Your task to perform on an android device: Toggle the flashlight Image 0: 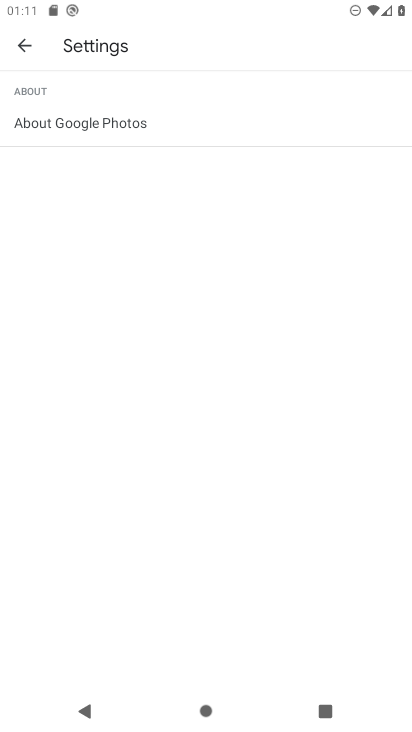
Step 0: press home button
Your task to perform on an android device: Toggle the flashlight Image 1: 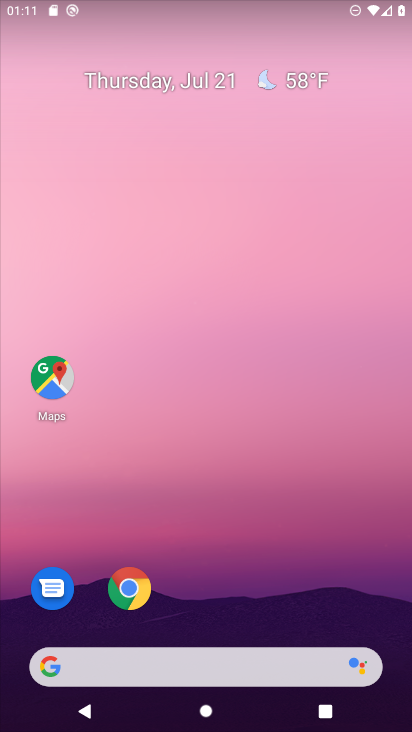
Step 1: drag from (202, 579) to (297, 5)
Your task to perform on an android device: Toggle the flashlight Image 2: 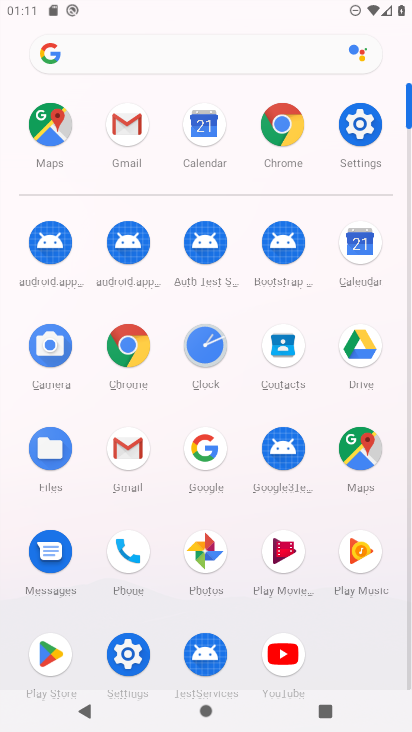
Step 2: click (368, 140)
Your task to perform on an android device: Toggle the flashlight Image 3: 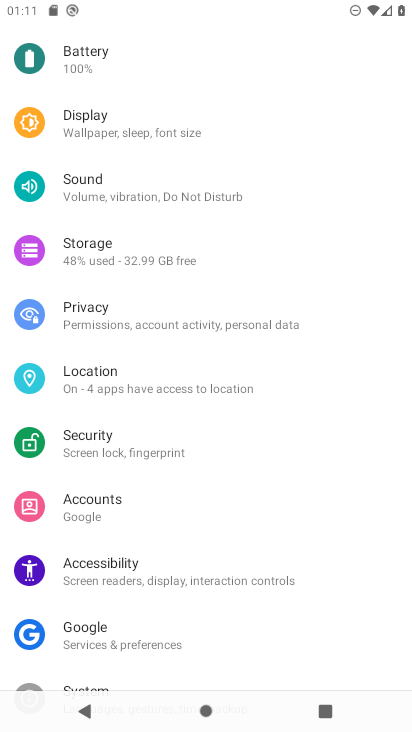
Step 3: drag from (169, 91) to (105, 551)
Your task to perform on an android device: Toggle the flashlight Image 4: 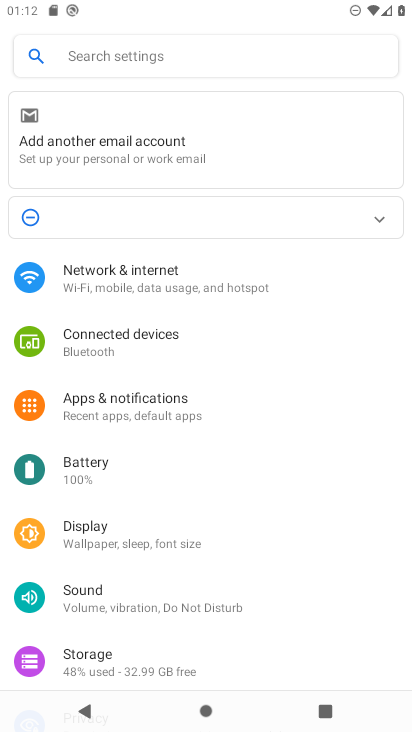
Step 4: click (203, 55)
Your task to perform on an android device: Toggle the flashlight Image 5: 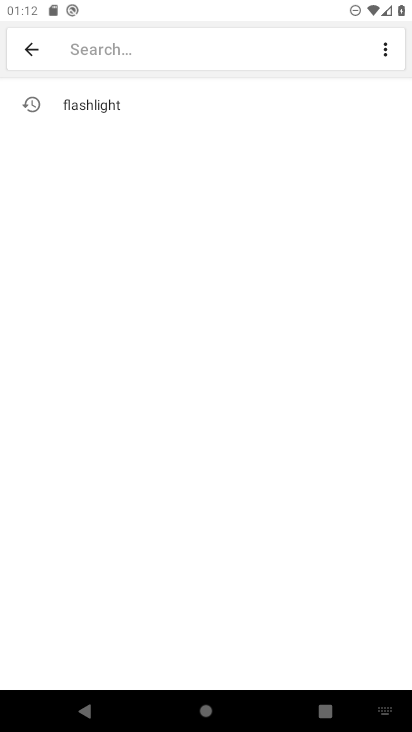
Step 5: type "flashlight"
Your task to perform on an android device: Toggle the flashlight Image 6: 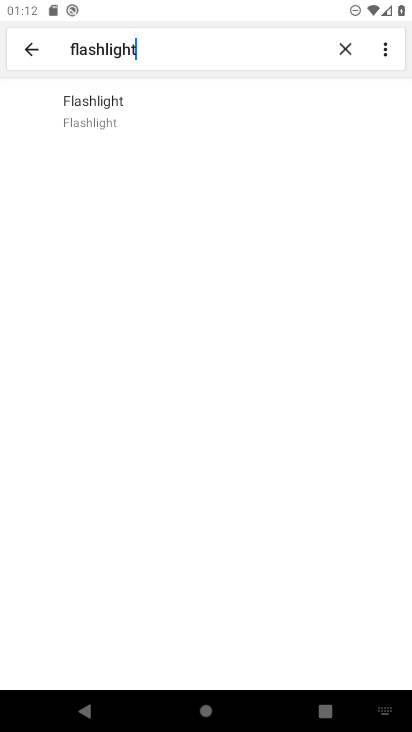
Step 6: click (98, 115)
Your task to perform on an android device: Toggle the flashlight Image 7: 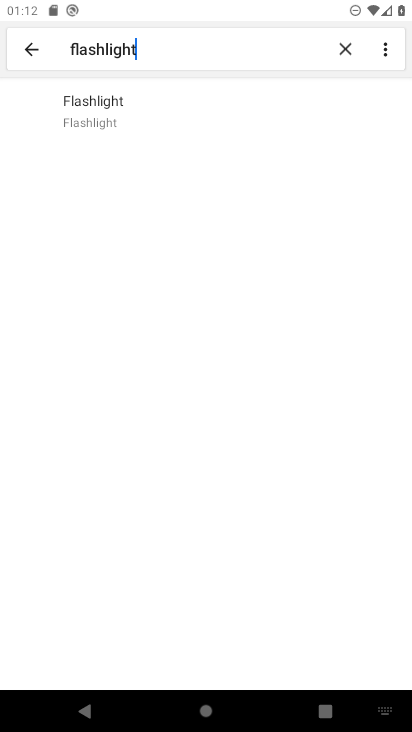
Step 7: click (95, 113)
Your task to perform on an android device: Toggle the flashlight Image 8: 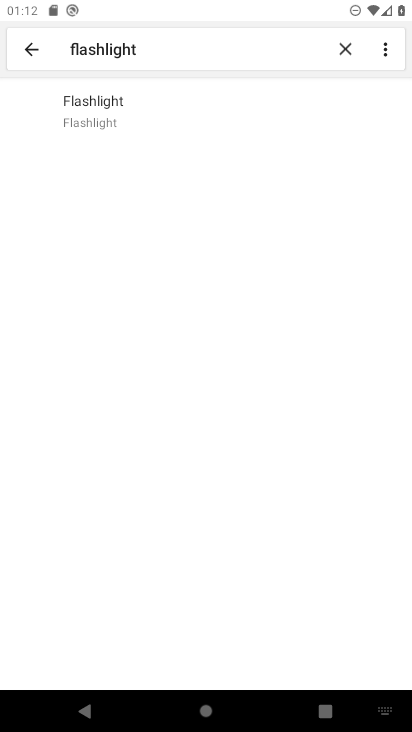
Step 8: task complete